Your task to perform on an android device: turn vacation reply on in the gmail app Image 0: 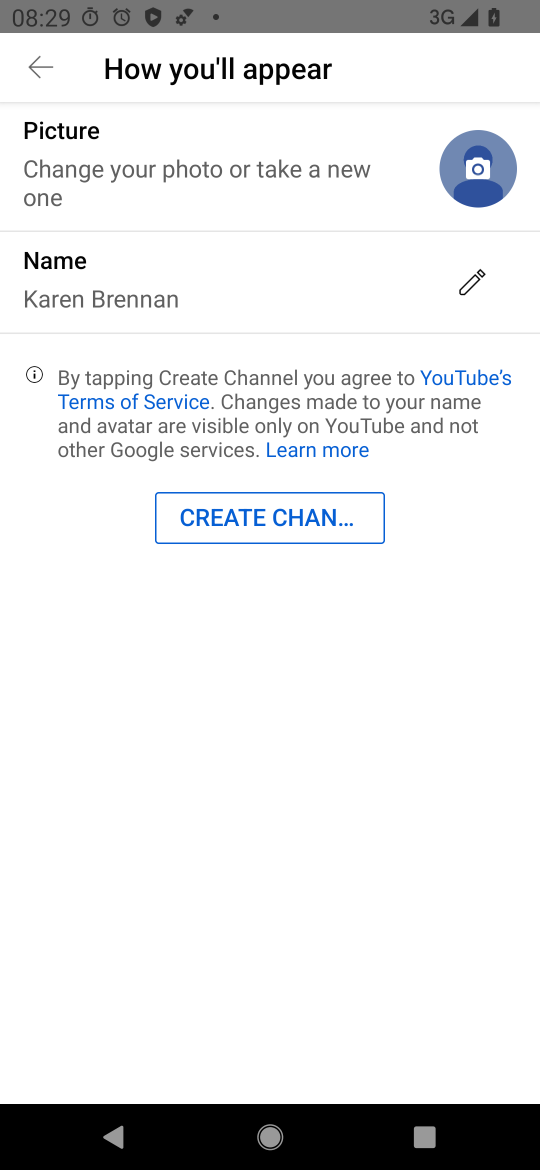
Step 0: press back button
Your task to perform on an android device: turn vacation reply on in the gmail app Image 1: 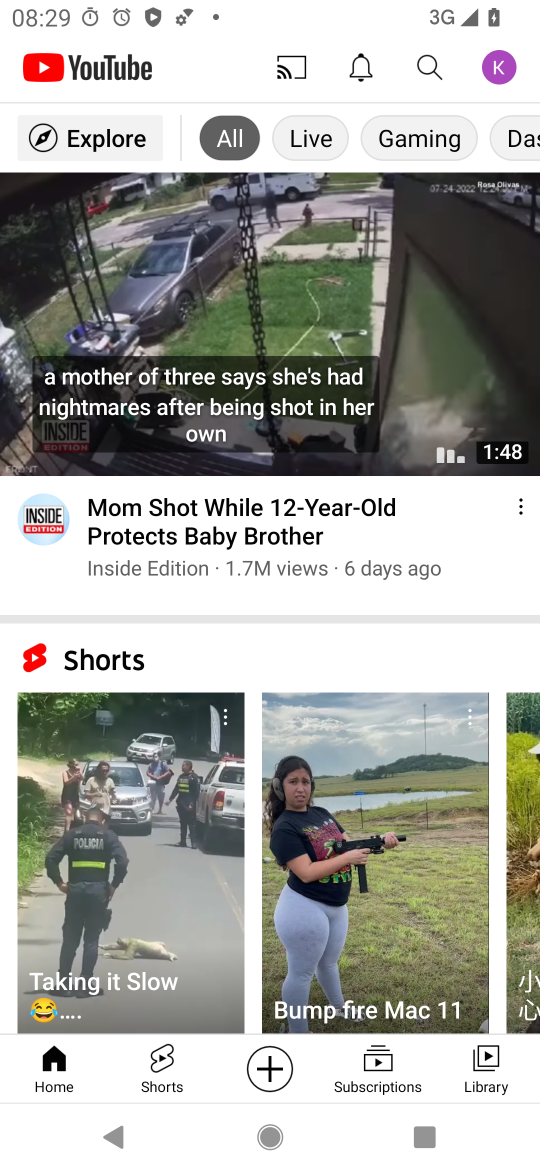
Step 1: press home button
Your task to perform on an android device: turn vacation reply on in the gmail app Image 2: 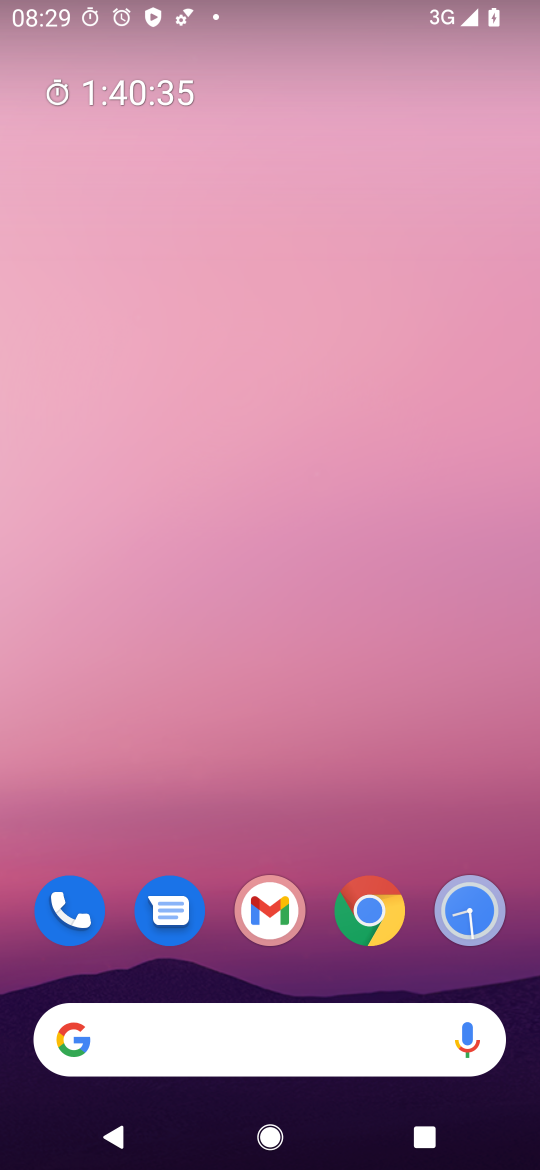
Step 2: drag from (399, 1013) to (362, 5)
Your task to perform on an android device: turn vacation reply on in the gmail app Image 3: 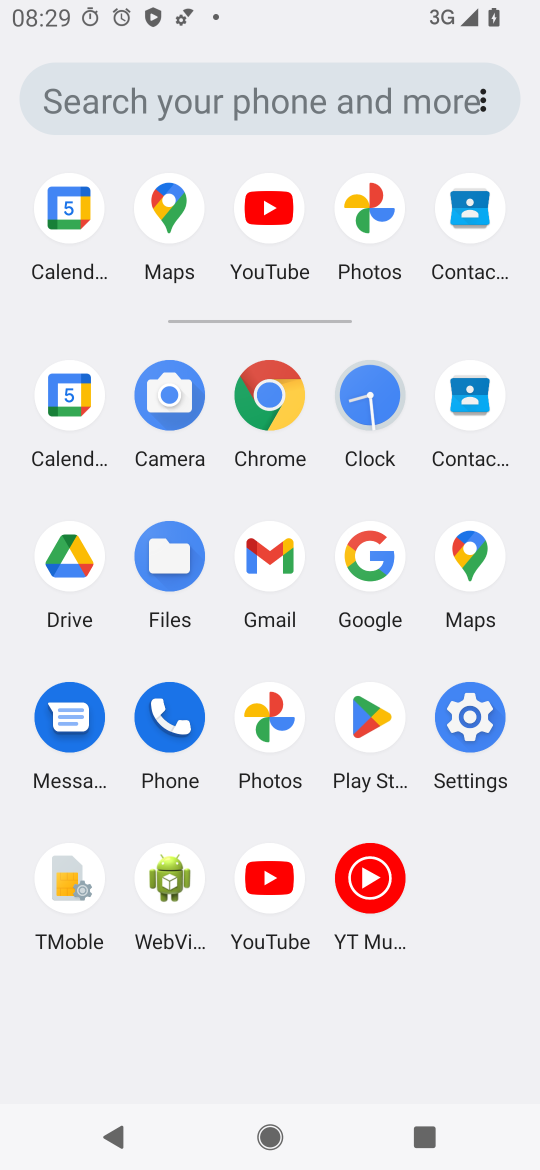
Step 3: click (263, 531)
Your task to perform on an android device: turn vacation reply on in the gmail app Image 4: 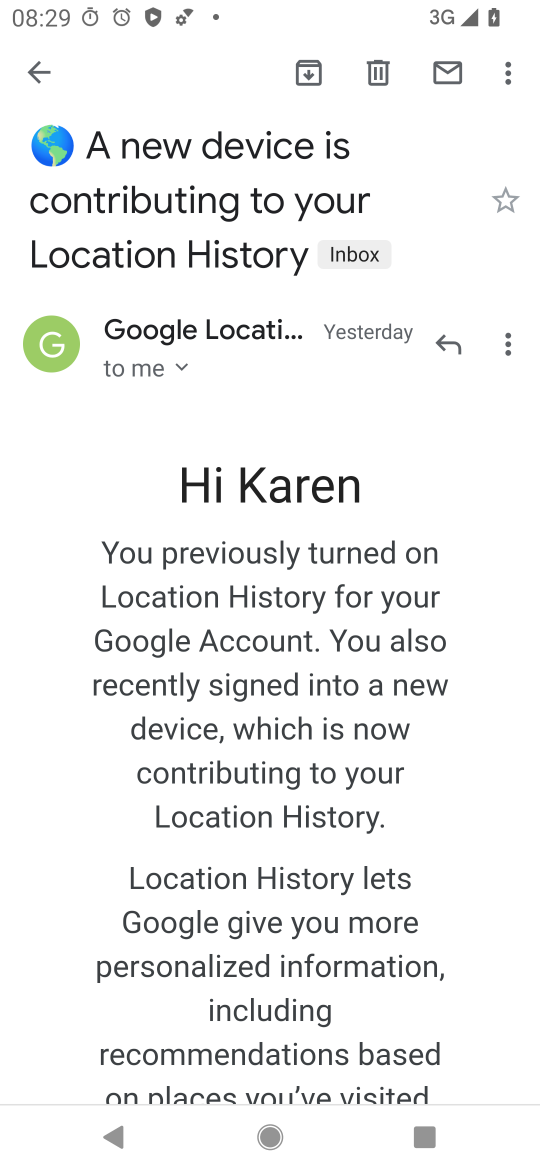
Step 4: press back button
Your task to perform on an android device: turn vacation reply on in the gmail app Image 5: 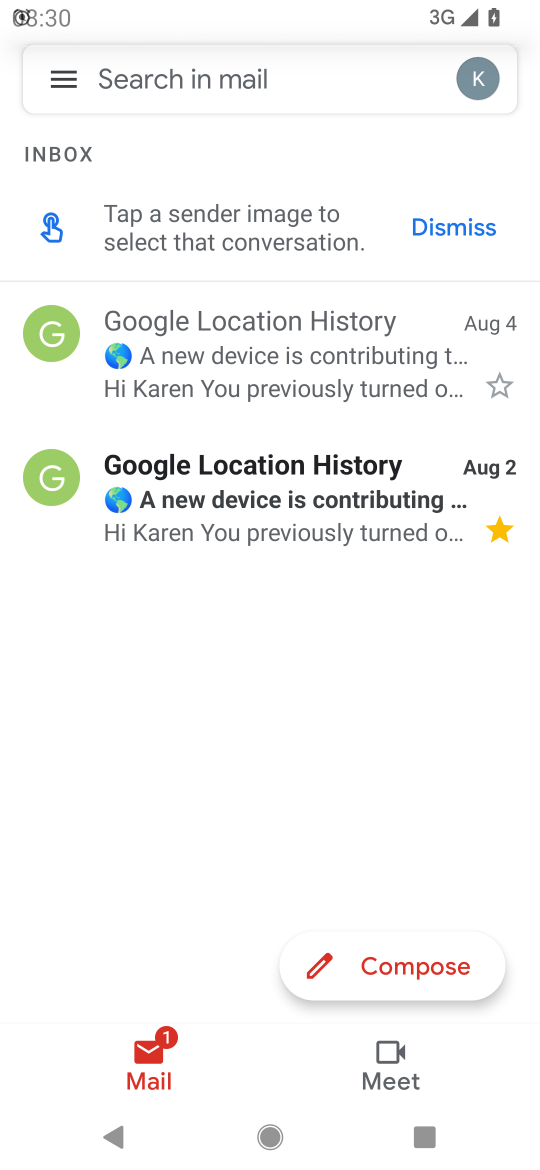
Step 5: click (54, 81)
Your task to perform on an android device: turn vacation reply on in the gmail app Image 6: 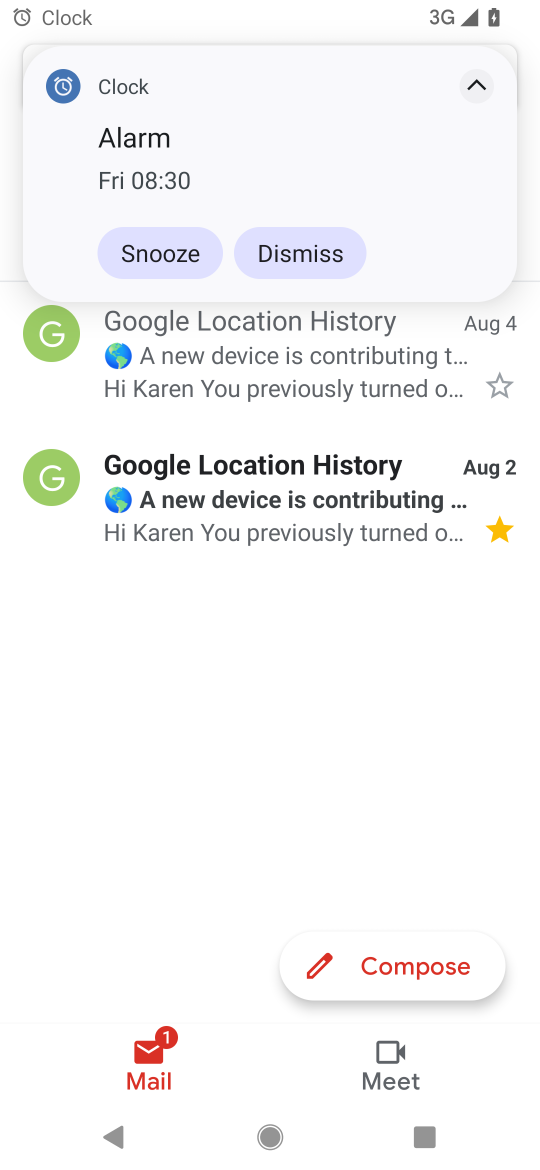
Step 6: click (322, 240)
Your task to perform on an android device: turn vacation reply on in the gmail app Image 7: 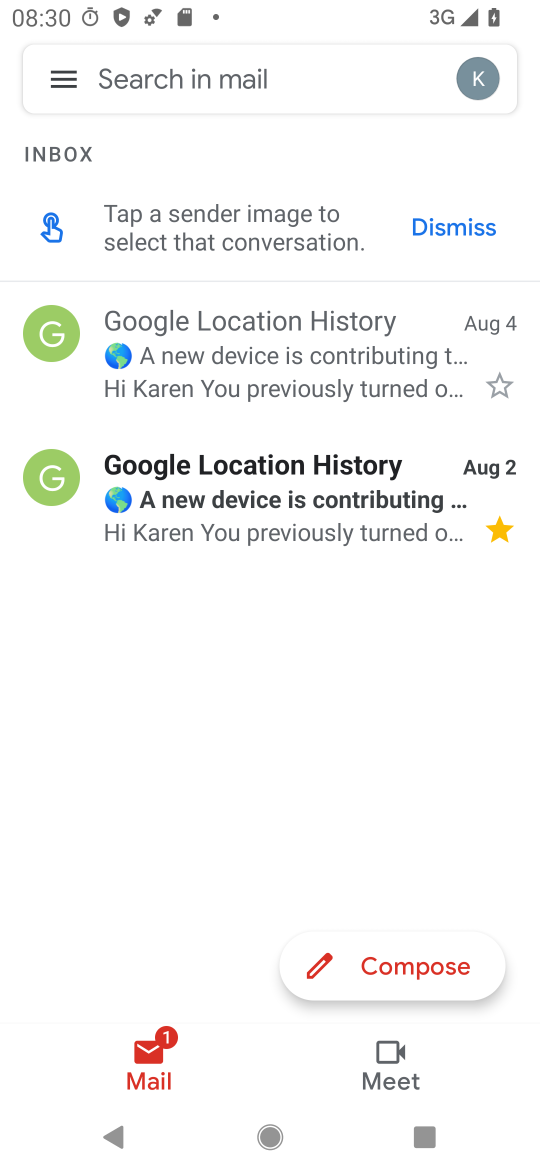
Step 7: click (65, 79)
Your task to perform on an android device: turn vacation reply on in the gmail app Image 8: 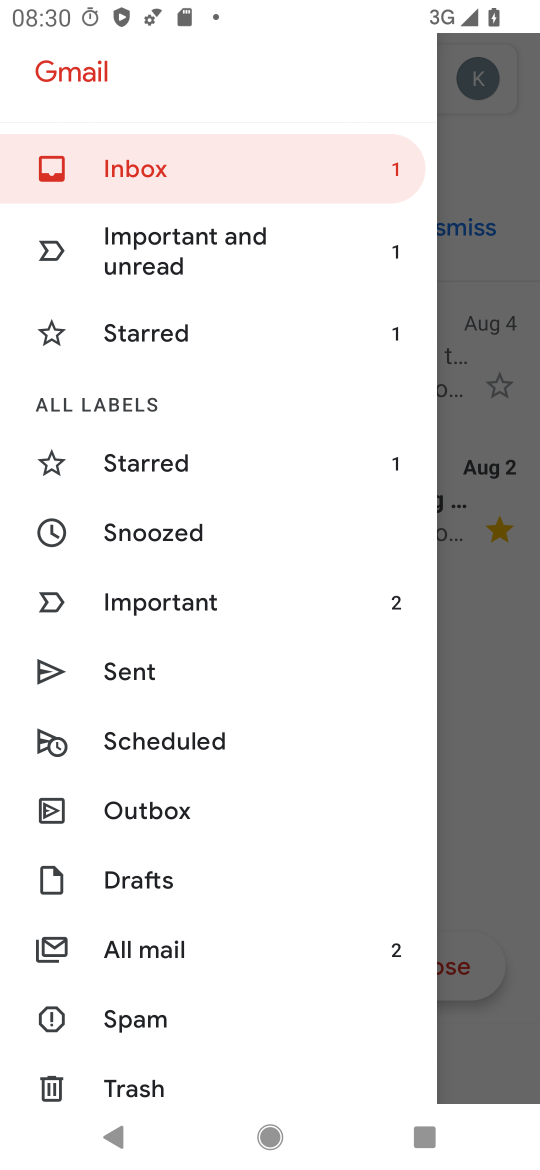
Step 8: drag from (278, 1056) to (253, 386)
Your task to perform on an android device: turn vacation reply on in the gmail app Image 9: 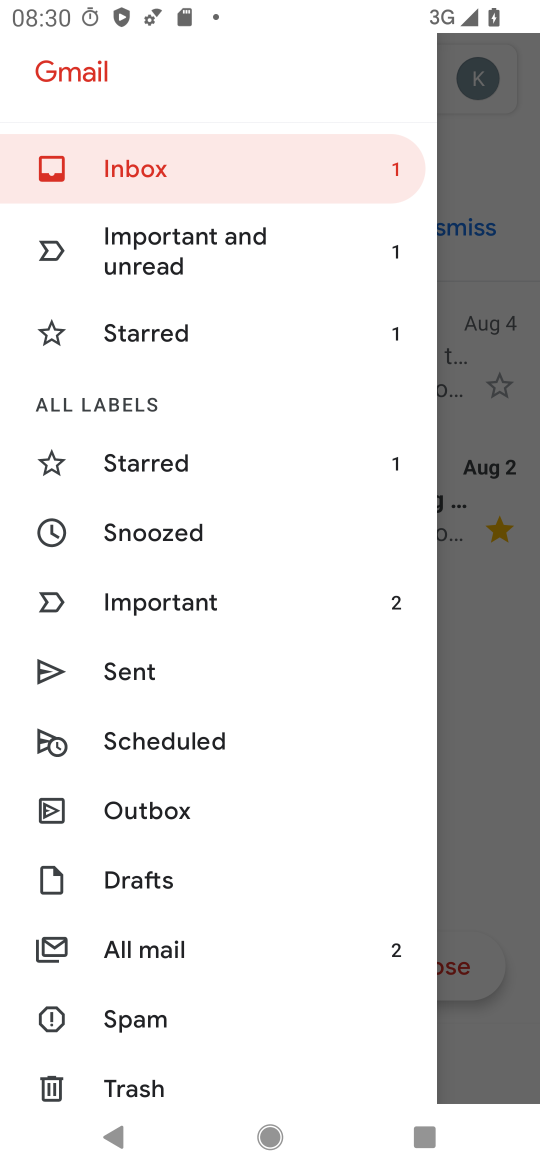
Step 9: drag from (217, 1030) to (247, 235)
Your task to perform on an android device: turn vacation reply on in the gmail app Image 10: 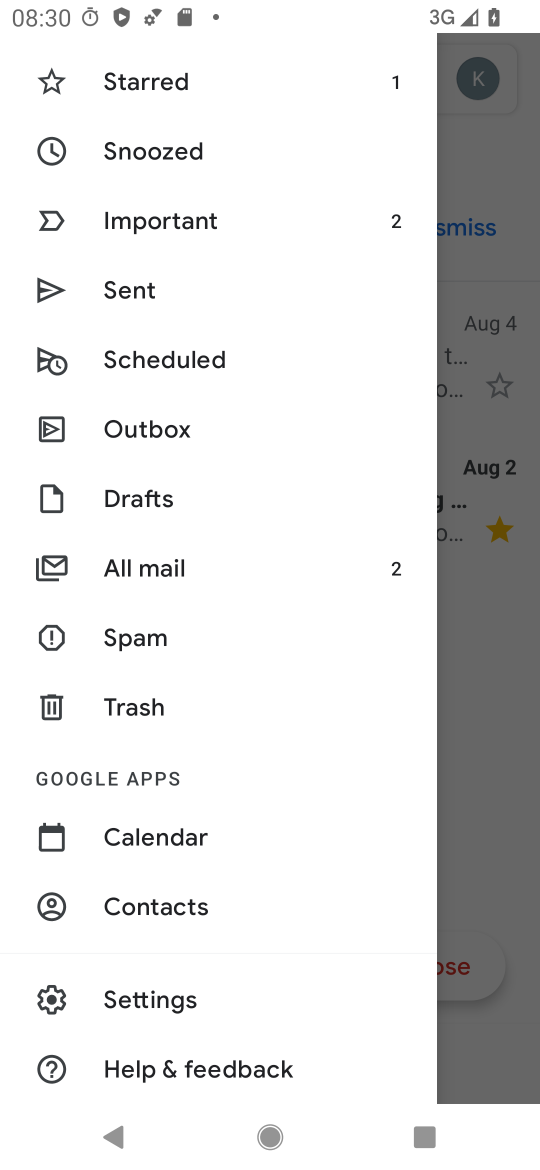
Step 10: click (182, 1000)
Your task to perform on an android device: turn vacation reply on in the gmail app Image 11: 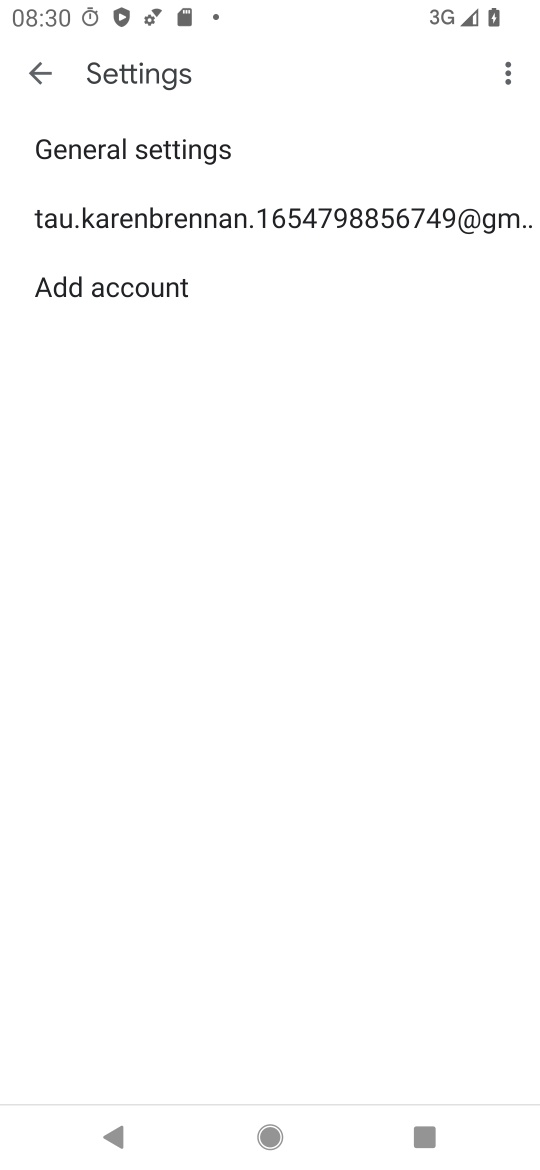
Step 11: click (287, 206)
Your task to perform on an android device: turn vacation reply on in the gmail app Image 12: 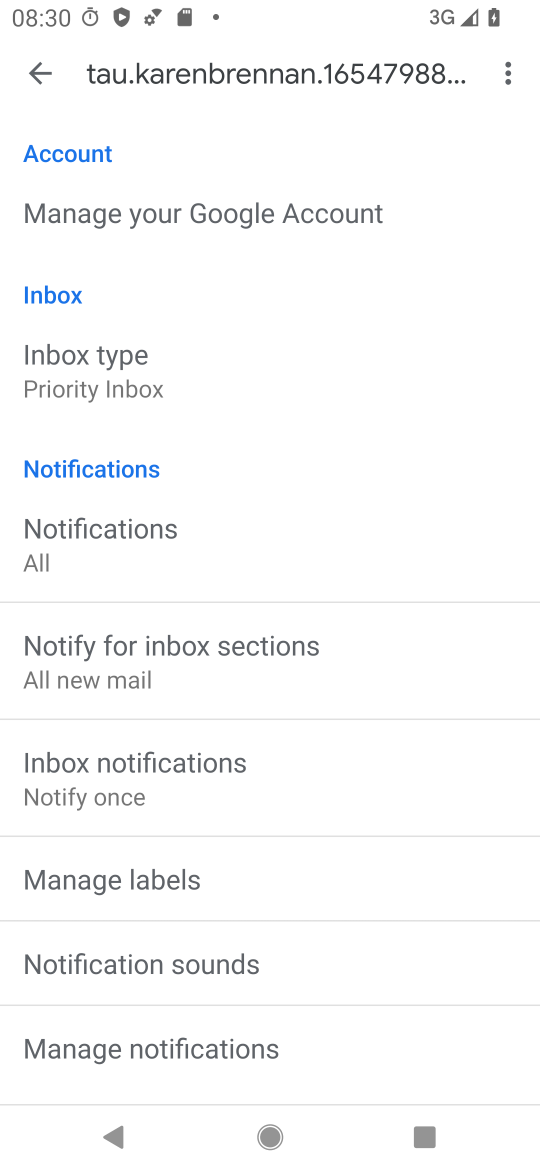
Step 12: drag from (304, 884) to (266, 179)
Your task to perform on an android device: turn vacation reply on in the gmail app Image 13: 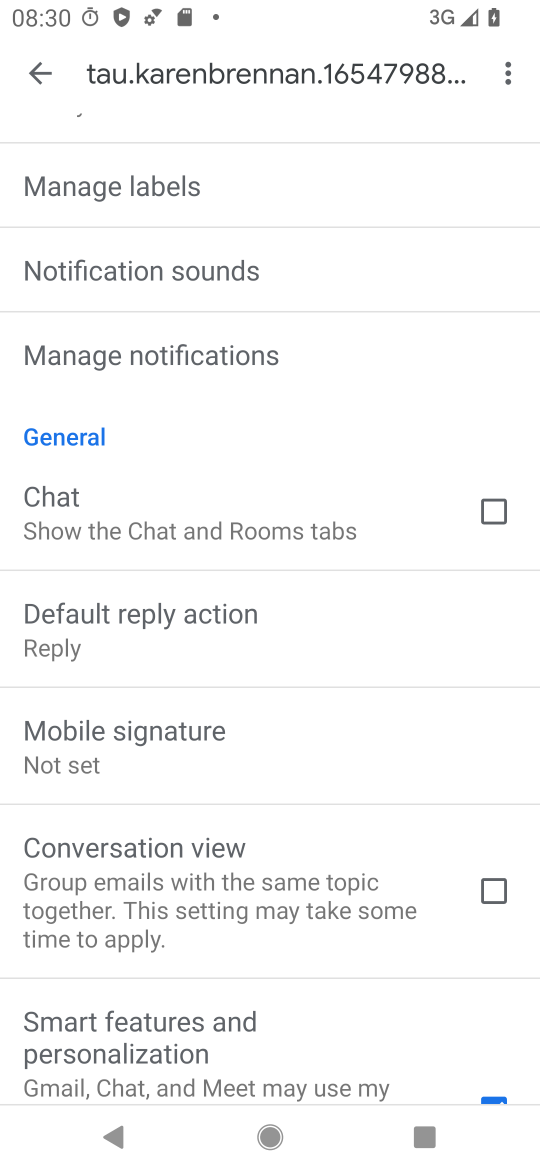
Step 13: drag from (349, 837) to (361, 150)
Your task to perform on an android device: turn vacation reply on in the gmail app Image 14: 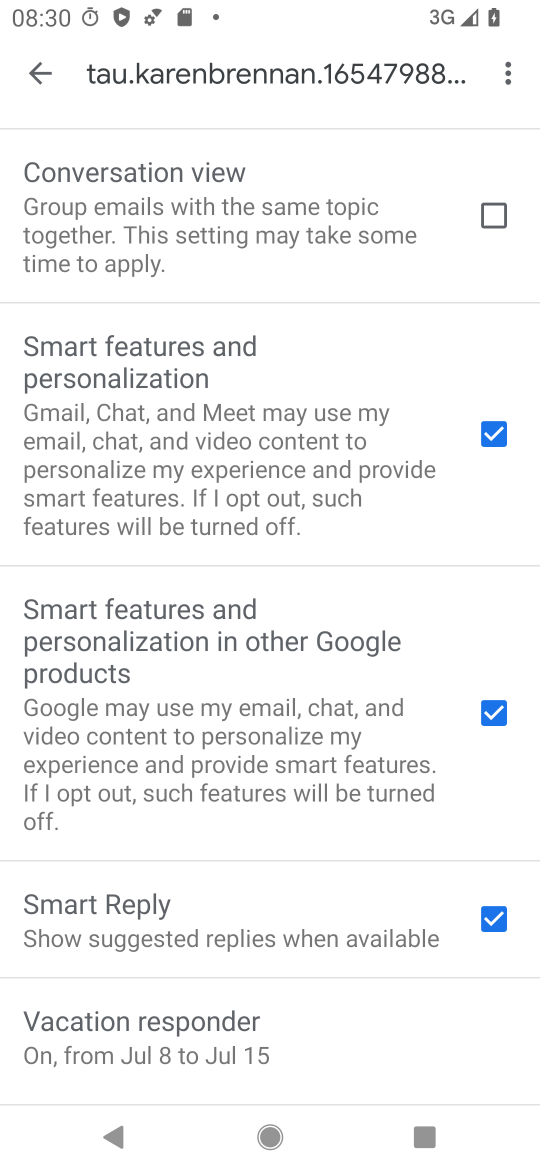
Step 14: click (238, 1031)
Your task to perform on an android device: turn vacation reply on in the gmail app Image 15: 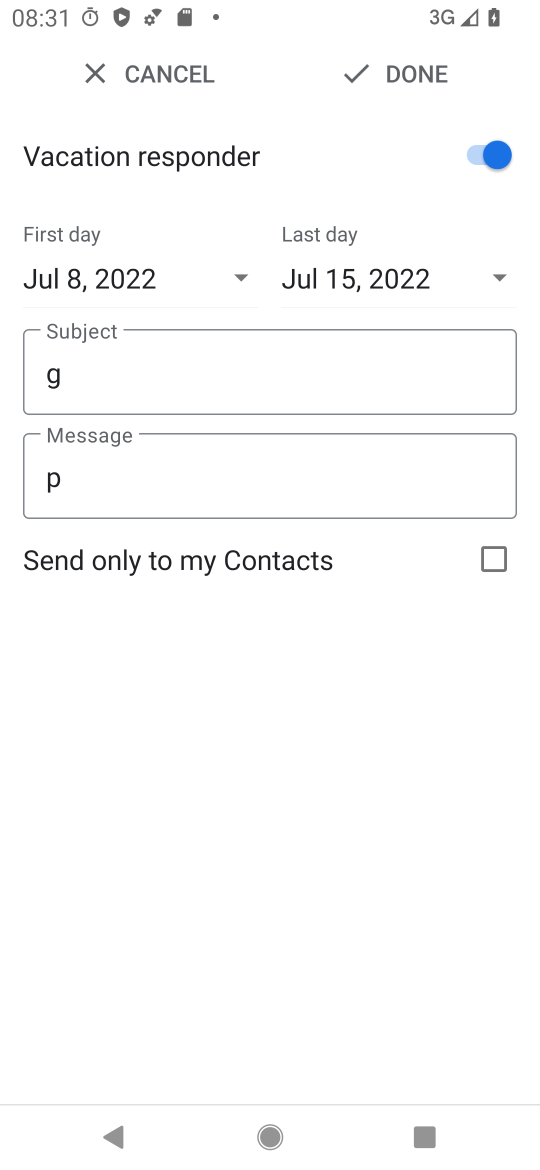
Step 15: click (399, 67)
Your task to perform on an android device: turn vacation reply on in the gmail app Image 16: 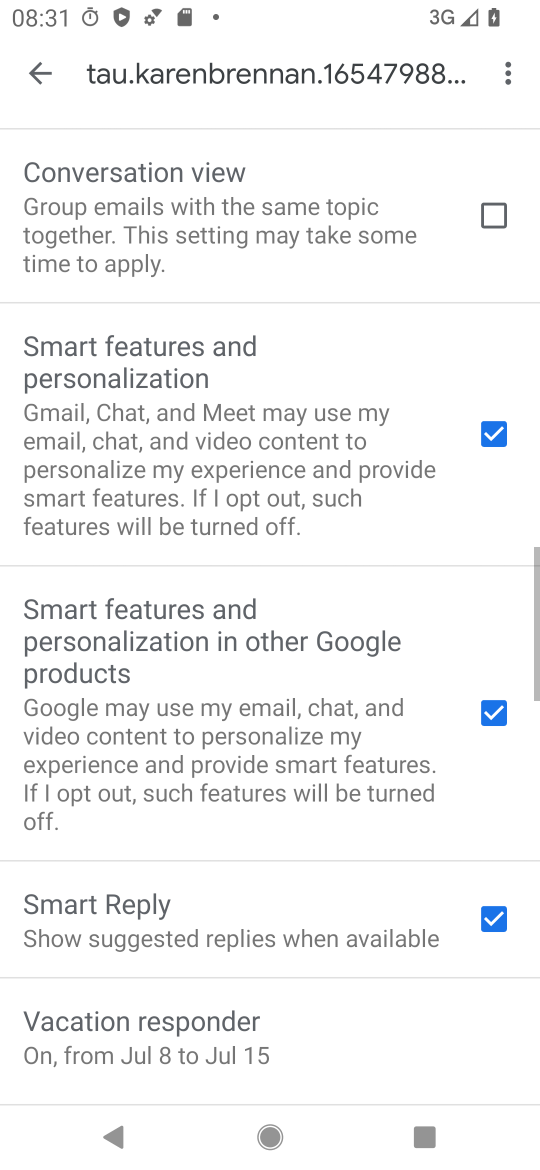
Step 16: task complete